Your task to perform on an android device: Go to notification settings Image 0: 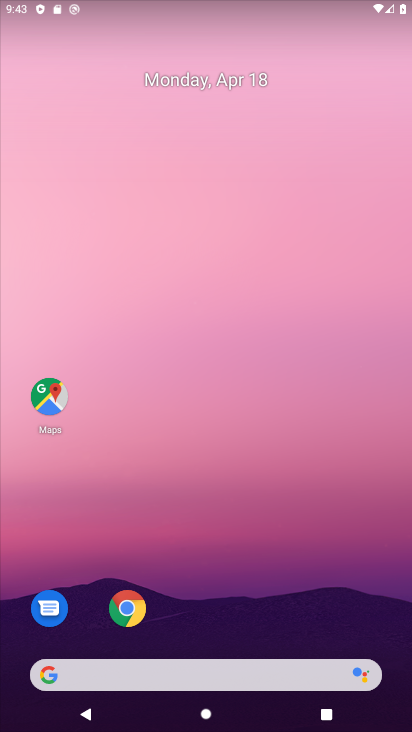
Step 0: drag from (285, 543) to (299, 150)
Your task to perform on an android device: Go to notification settings Image 1: 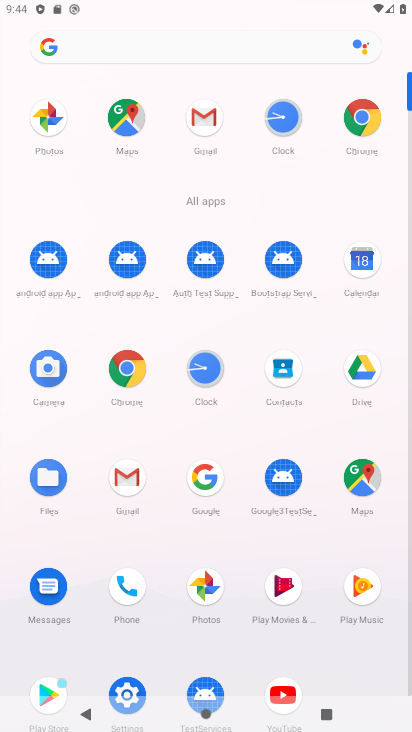
Step 1: click (122, 686)
Your task to perform on an android device: Go to notification settings Image 2: 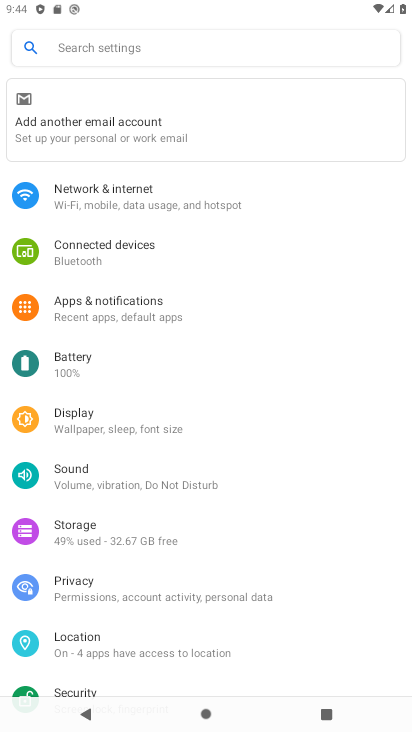
Step 2: click (161, 312)
Your task to perform on an android device: Go to notification settings Image 3: 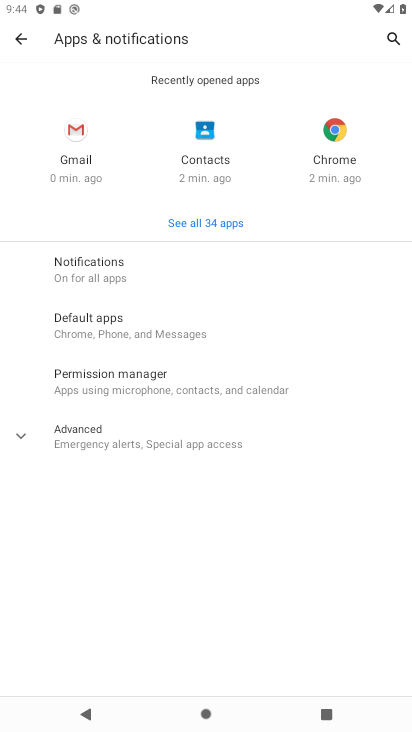
Step 3: click (132, 262)
Your task to perform on an android device: Go to notification settings Image 4: 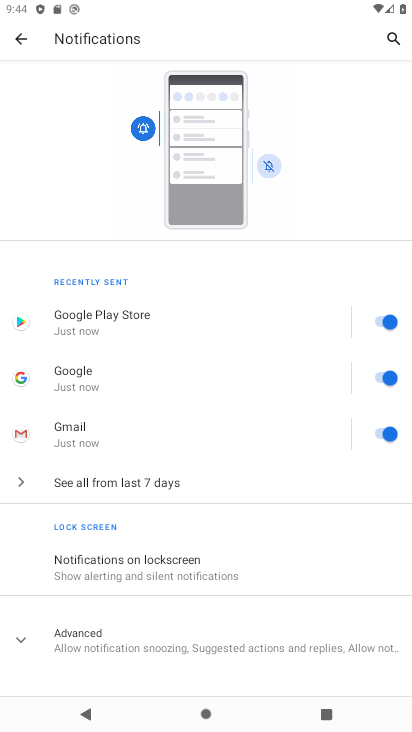
Step 4: task complete